Your task to perform on an android device: Go to battery settings Image 0: 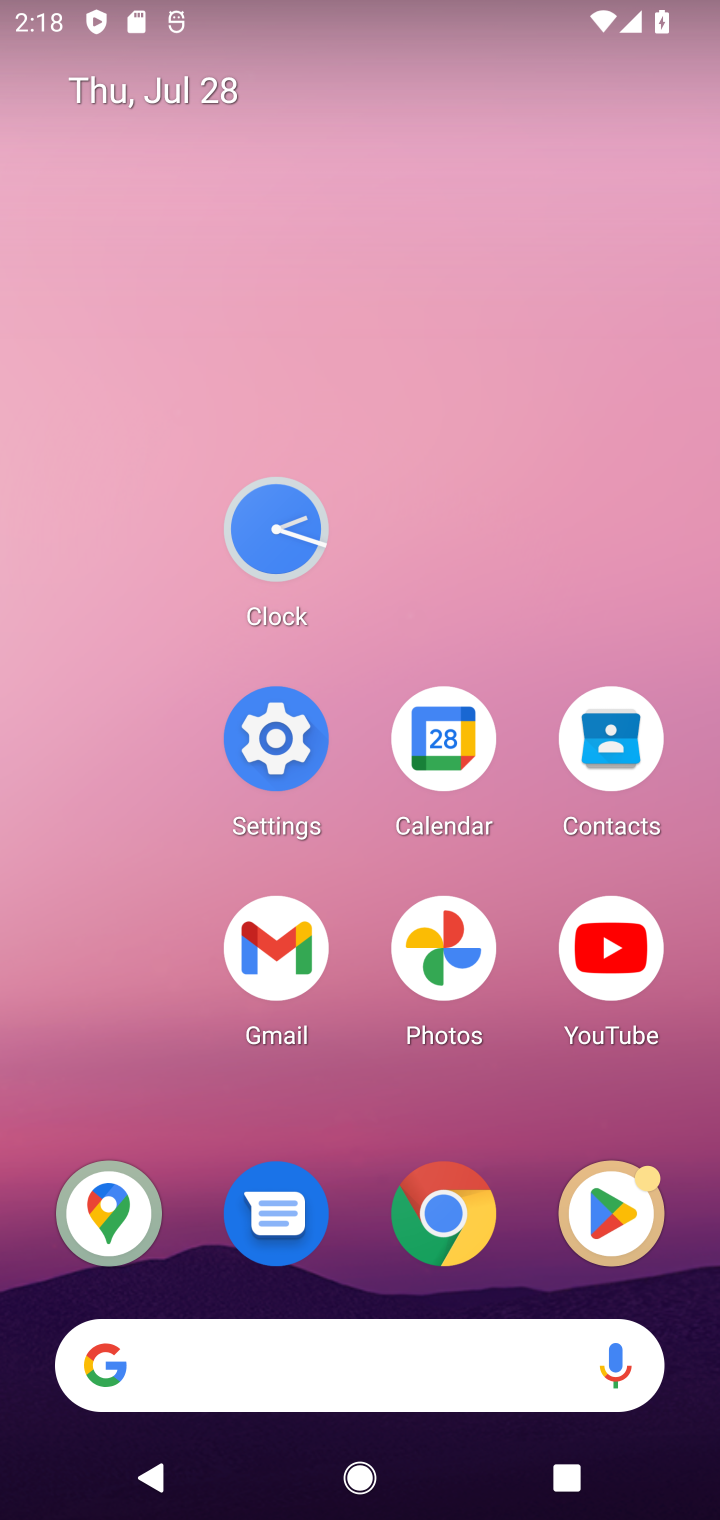
Step 0: press home button
Your task to perform on an android device: Go to battery settings Image 1: 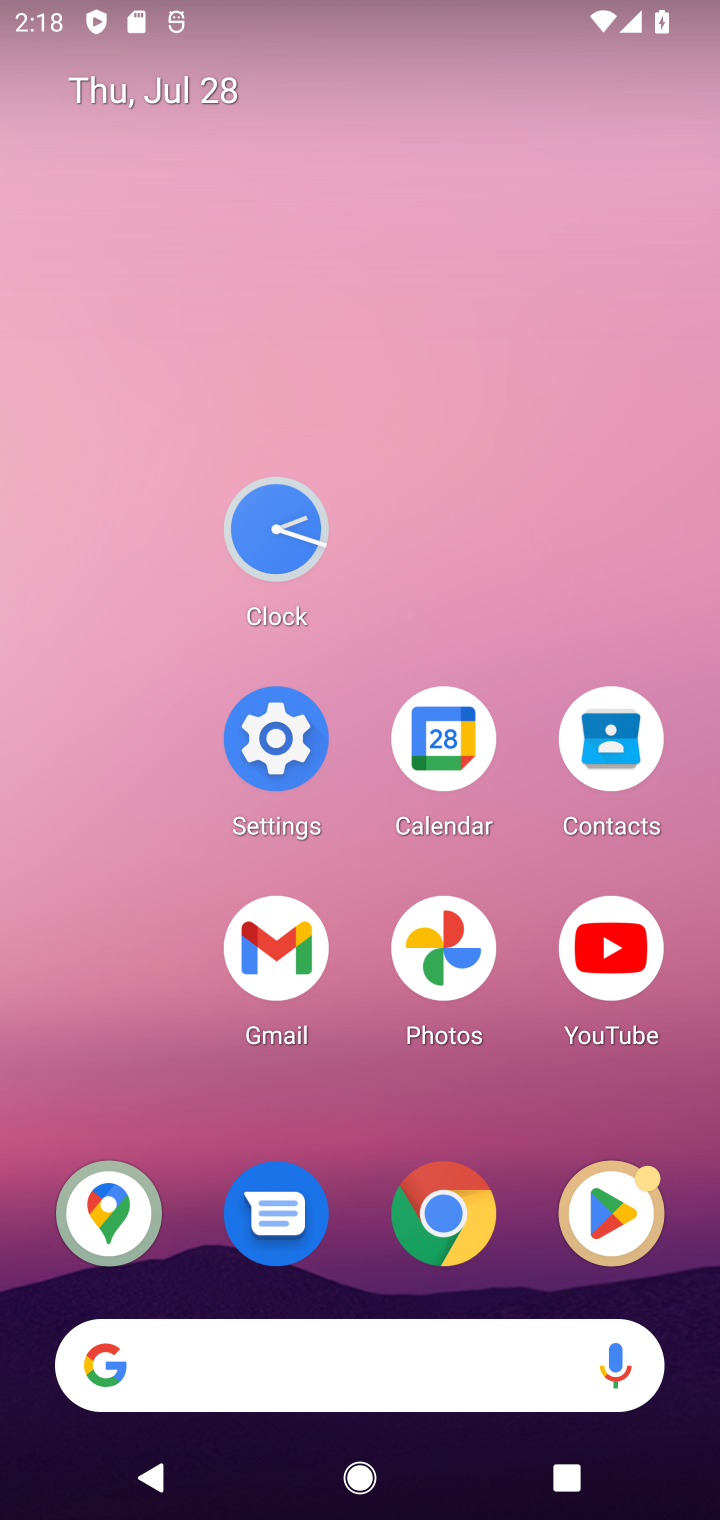
Step 1: click (271, 741)
Your task to perform on an android device: Go to battery settings Image 2: 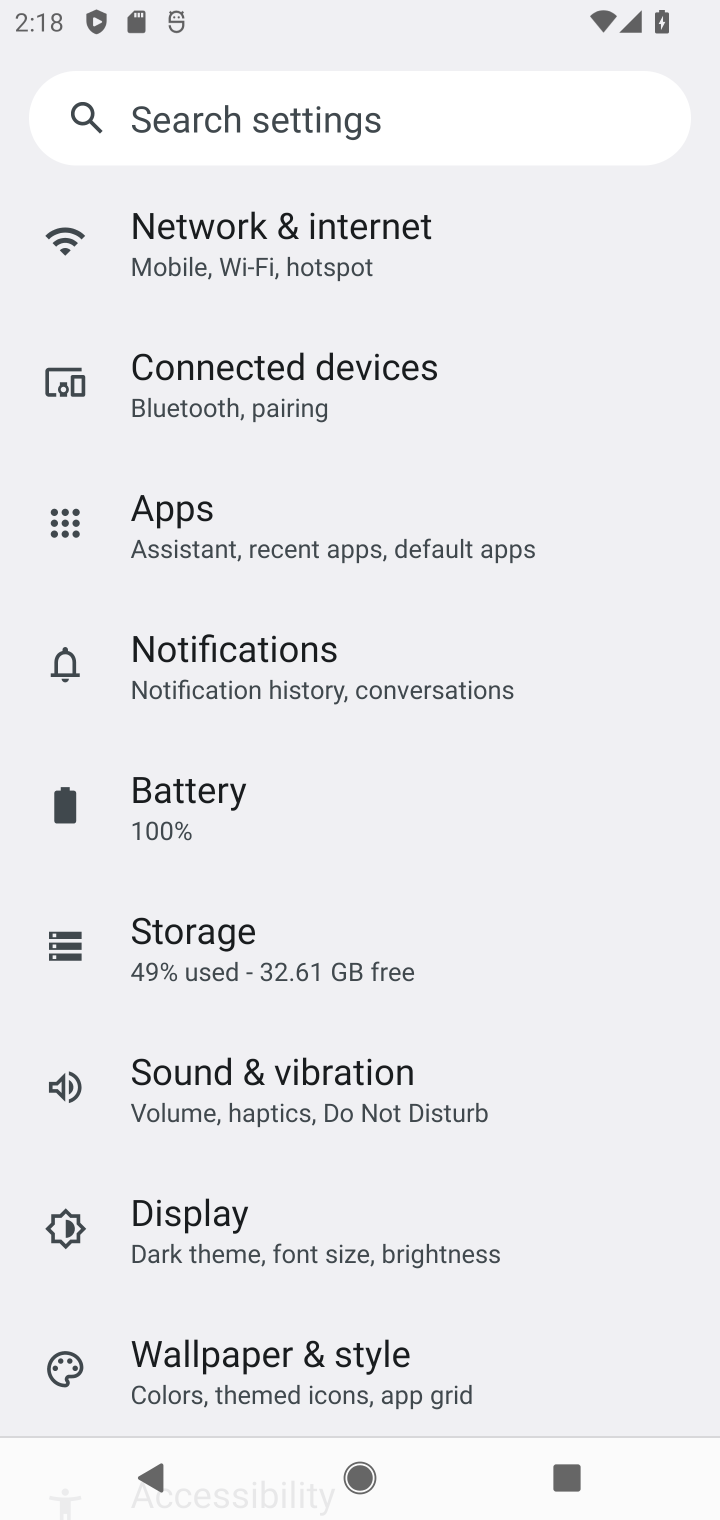
Step 2: click (190, 802)
Your task to perform on an android device: Go to battery settings Image 3: 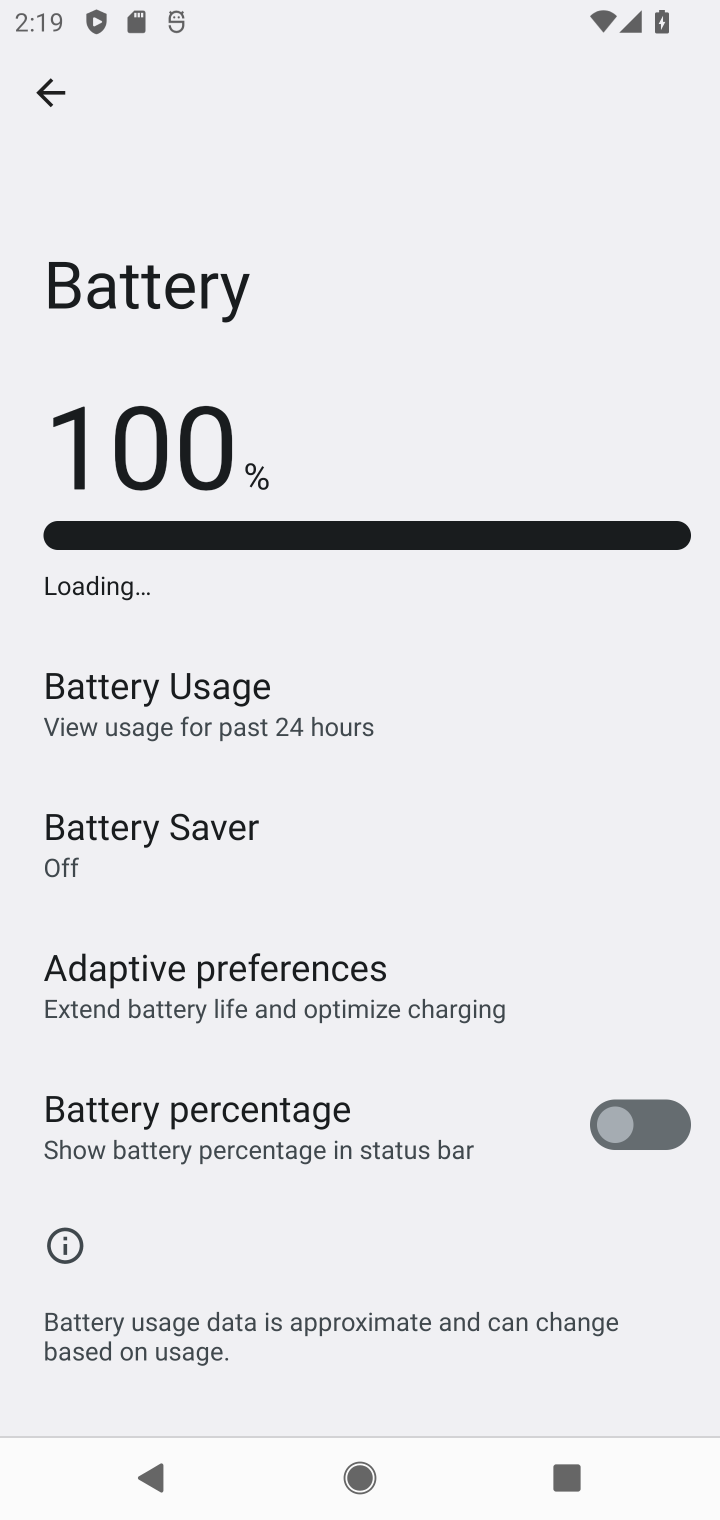
Step 3: task complete